Your task to perform on an android device: Go to Reddit.com Image 0: 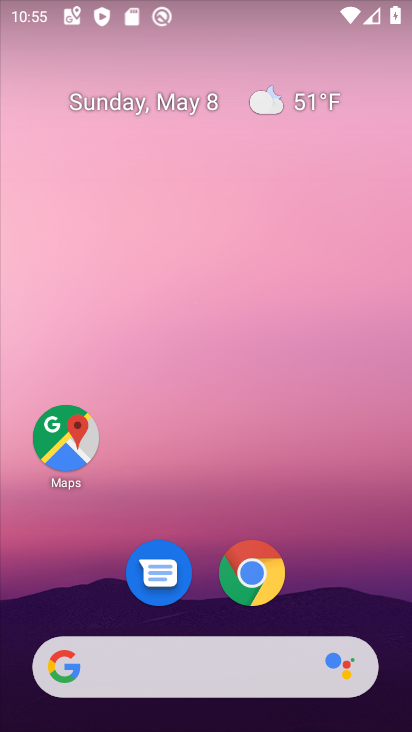
Step 0: drag from (191, 634) to (193, 269)
Your task to perform on an android device: Go to Reddit.com Image 1: 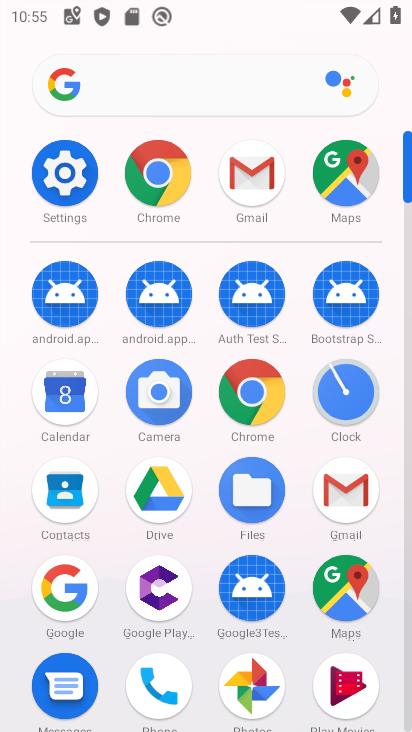
Step 1: click (60, 593)
Your task to perform on an android device: Go to Reddit.com Image 2: 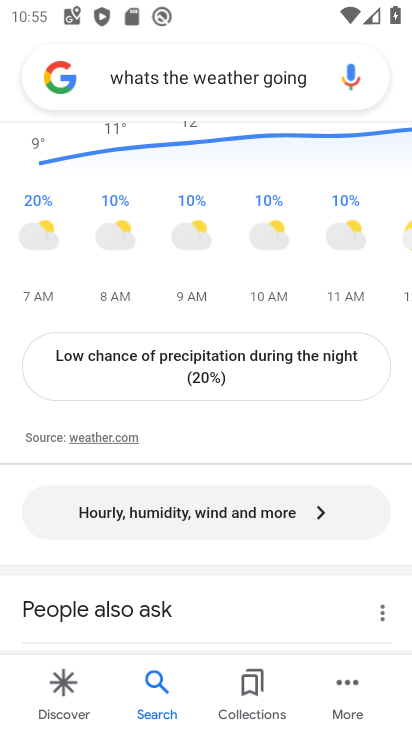
Step 2: click (242, 77)
Your task to perform on an android device: Go to Reddit.com Image 3: 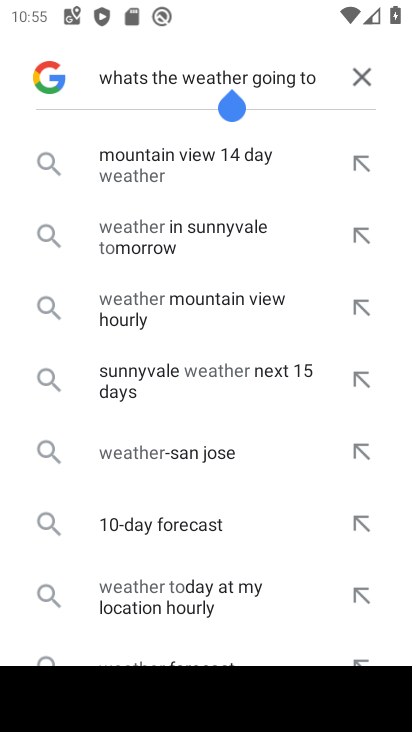
Step 3: click (369, 82)
Your task to perform on an android device: Go to Reddit.com Image 4: 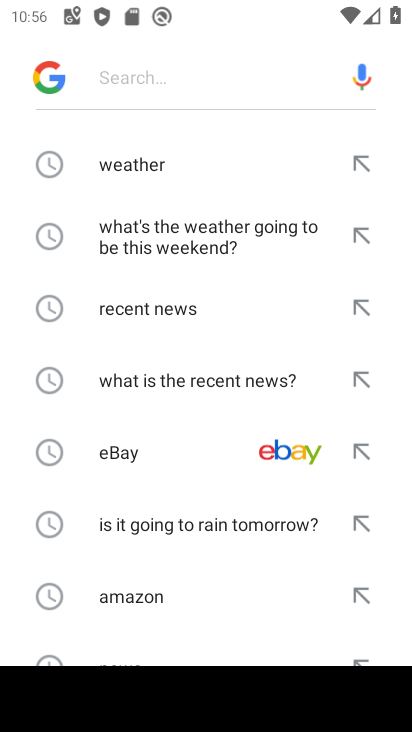
Step 4: type "Reddit.com"
Your task to perform on an android device: Go to Reddit.com Image 5: 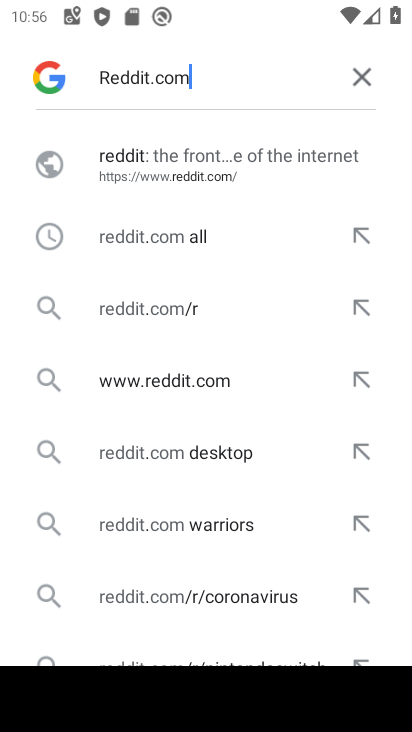
Step 5: click (211, 168)
Your task to perform on an android device: Go to Reddit.com Image 6: 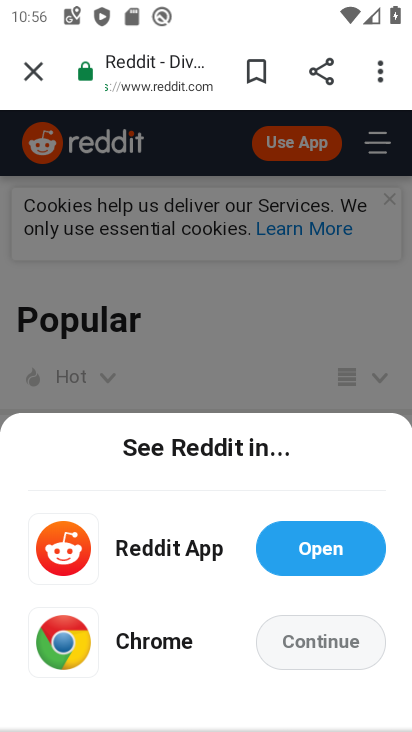
Step 6: task complete